Your task to perform on an android device: check android version Image 0: 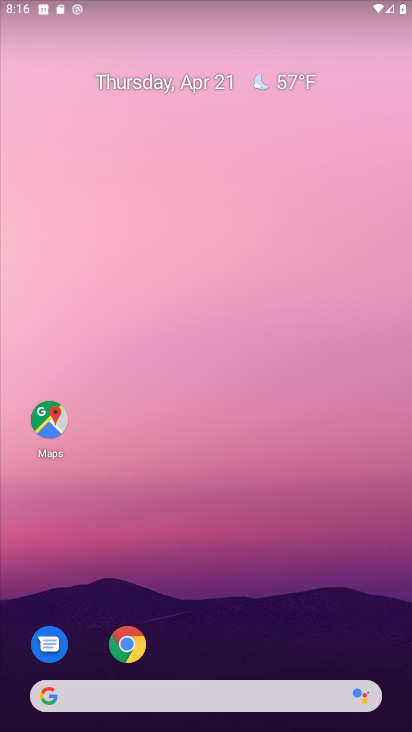
Step 0: drag from (242, 618) to (235, 15)
Your task to perform on an android device: check android version Image 1: 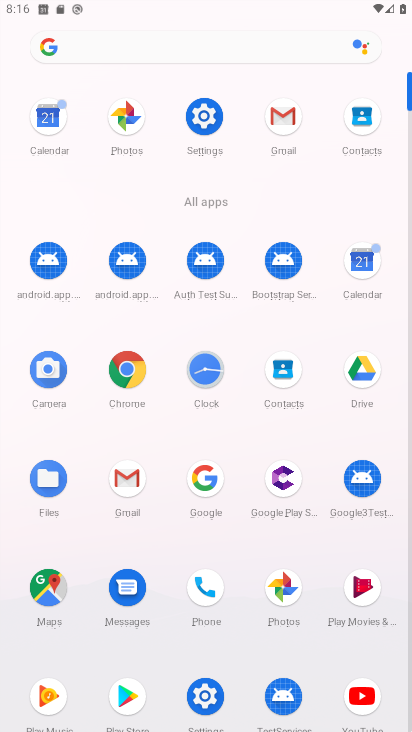
Step 1: click (202, 112)
Your task to perform on an android device: check android version Image 2: 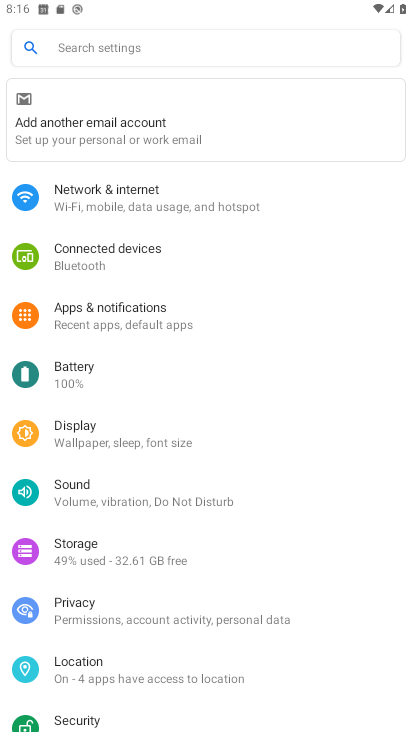
Step 2: drag from (197, 597) to (213, 191)
Your task to perform on an android device: check android version Image 3: 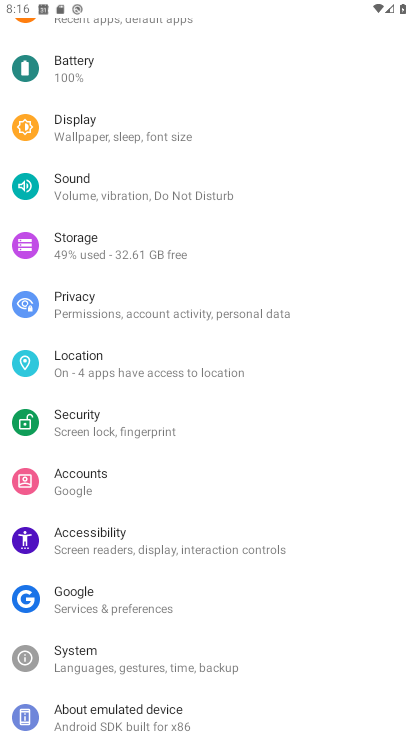
Step 3: click (168, 712)
Your task to perform on an android device: check android version Image 4: 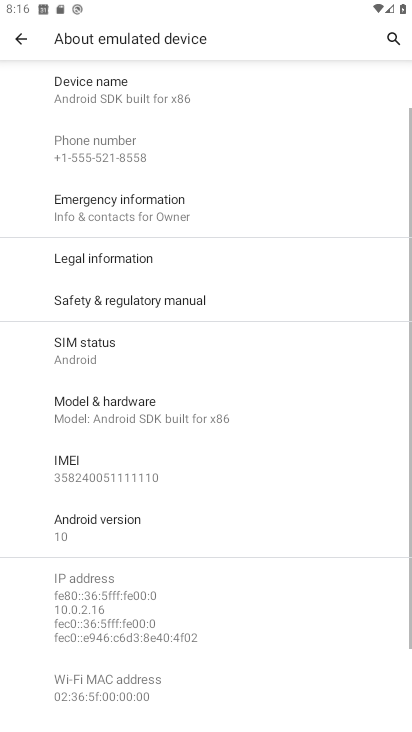
Step 4: click (141, 530)
Your task to perform on an android device: check android version Image 5: 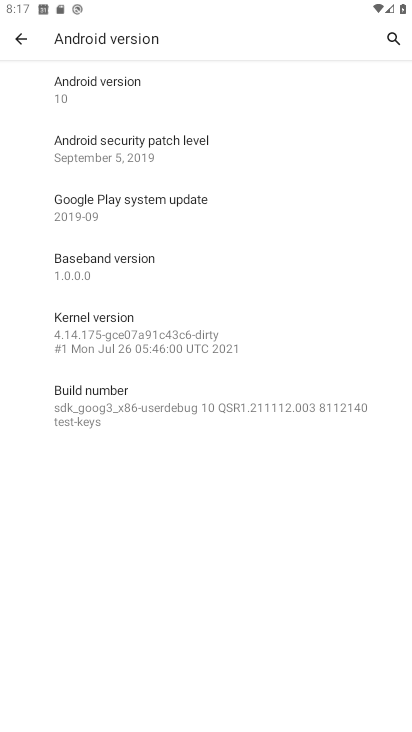
Step 5: task complete